Your task to perform on an android device: turn off data saver in the chrome app Image 0: 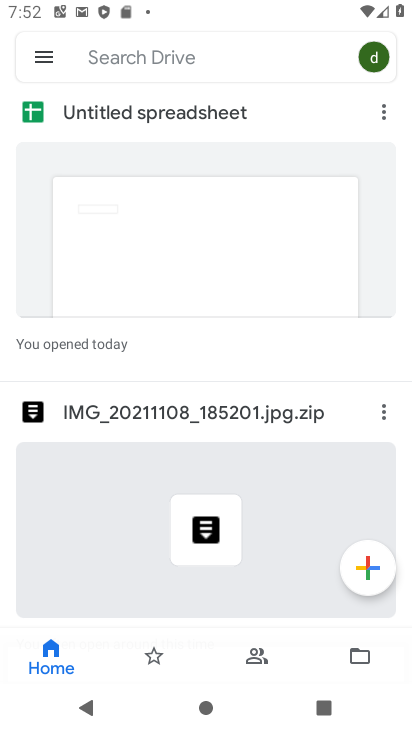
Step 0: press home button
Your task to perform on an android device: turn off data saver in the chrome app Image 1: 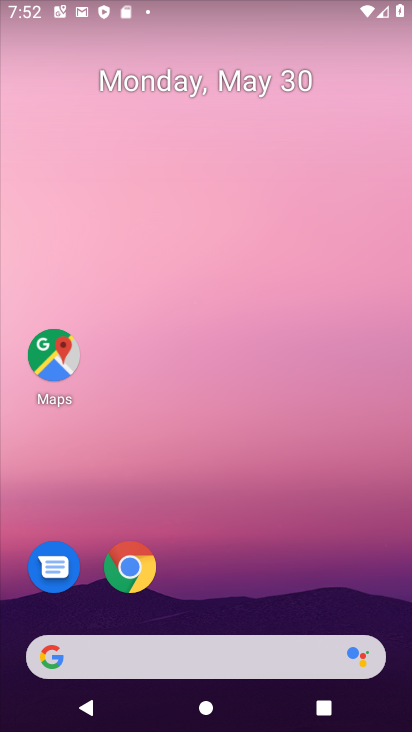
Step 1: task complete